Your task to perform on an android device: Go to Reddit.com Image 0: 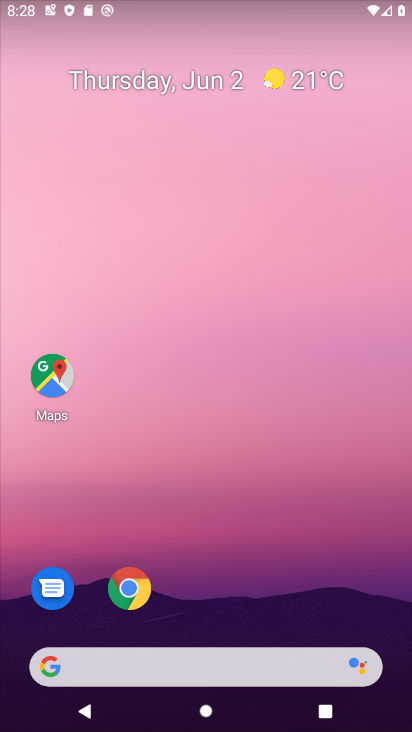
Step 0: click (149, 581)
Your task to perform on an android device: Go to Reddit.com Image 1: 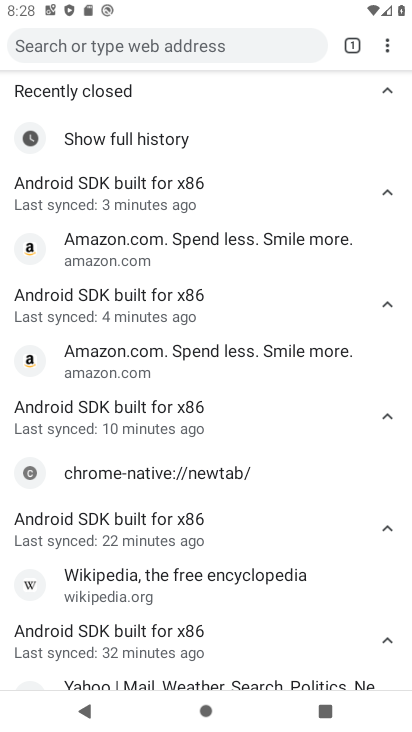
Step 1: click (245, 40)
Your task to perform on an android device: Go to Reddit.com Image 2: 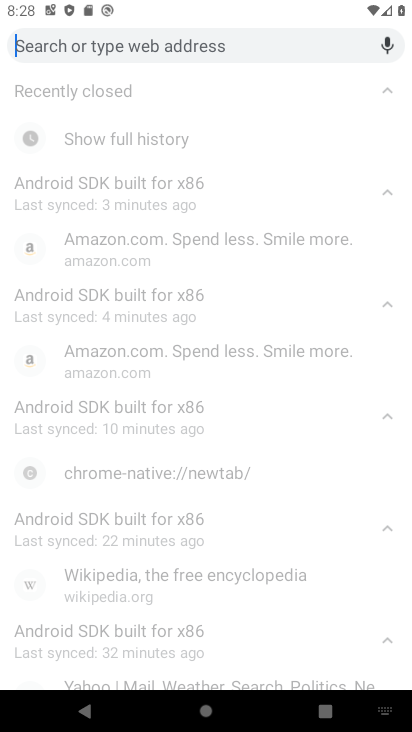
Step 2: type "reddit.com"
Your task to perform on an android device: Go to Reddit.com Image 3: 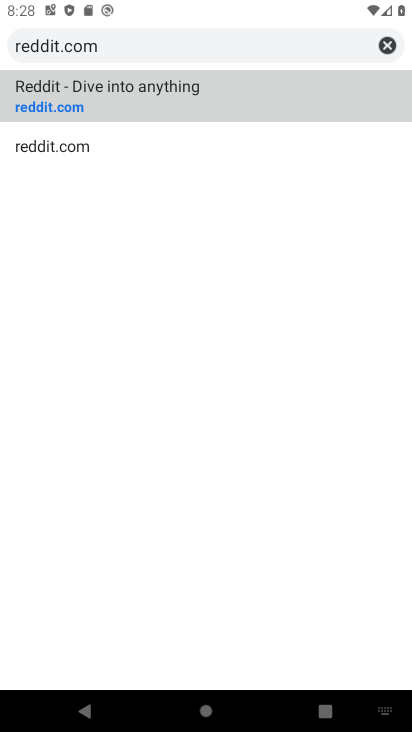
Step 3: click (55, 108)
Your task to perform on an android device: Go to Reddit.com Image 4: 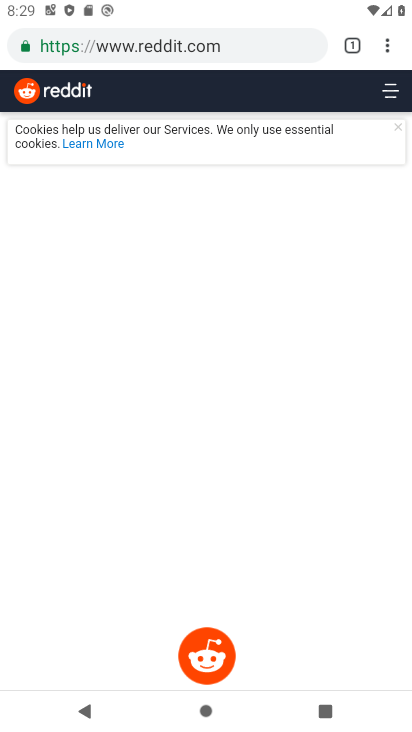
Step 4: task complete